Your task to perform on an android device: Search for "bose soundsport free" on costco.com, select the first entry, and add it to the cart. Image 0: 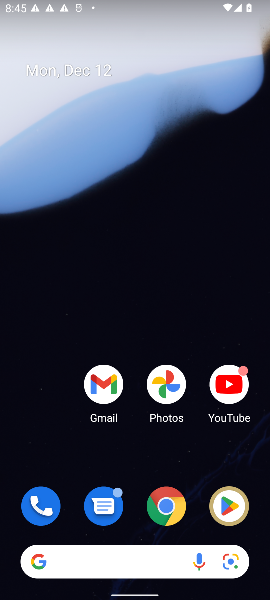
Step 0: click (124, 555)
Your task to perform on an android device: Search for "bose soundsport free" on costco.com, select the first entry, and add it to the cart. Image 1: 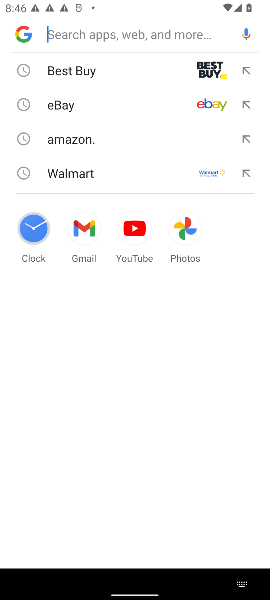
Step 1: type "costco.com"
Your task to perform on an android device: Search for "bose soundsport free" on costco.com, select the first entry, and add it to the cart. Image 2: 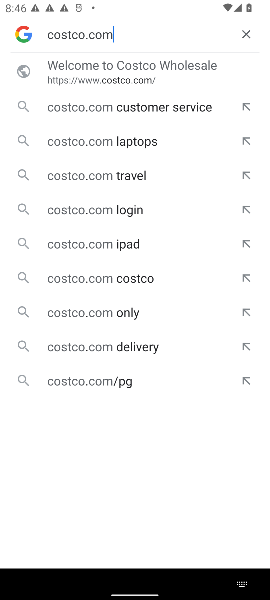
Step 2: click (100, 87)
Your task to perform on an android device: Search for "bose soundsport free" on costco.com, select the first entry, and add it to the cart. Image 3: 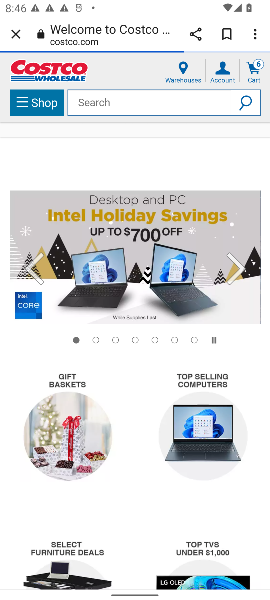
Step 3: drag from (91, 520) to (136, 588)
Your task to perform on an android device: Search for "bose soundsport free" on costco.com, select the first entry, and add it to the cart. Image 4: 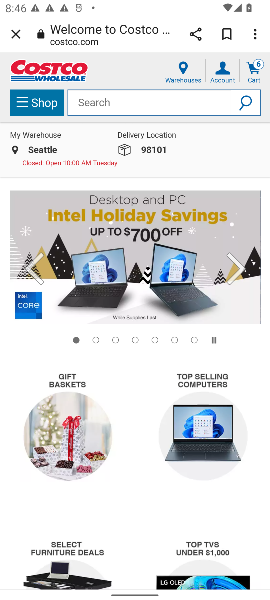
Step 4: click (141, 95)
Your task to perform on an android device: Search for "bose soundsport free" on costco.com, select the first entry, and add it to the cart. Image 5: 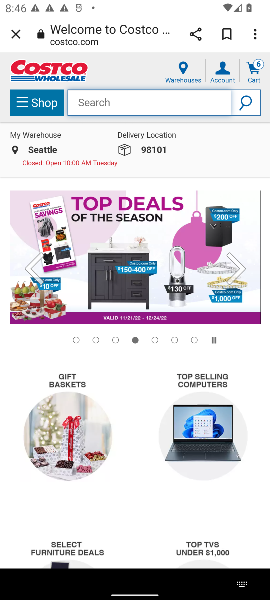
Step 5: type "bose sound link"
Your task to perform on an android device: Search for "bose soundsport free" on costco.com, select the first entry, and add it to the cart. Image 6: 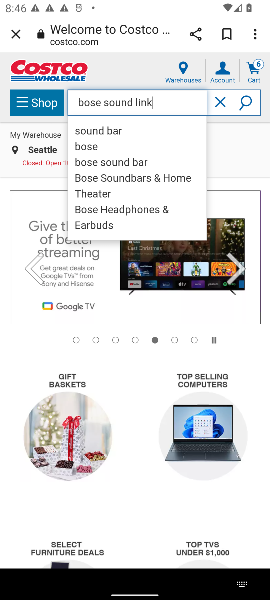
Step 6: click (241, 112)
Your task to perform on an android device: Search for "bose soundsport free" on costco.com, select the first entry, and add it to the cart. Image 7: 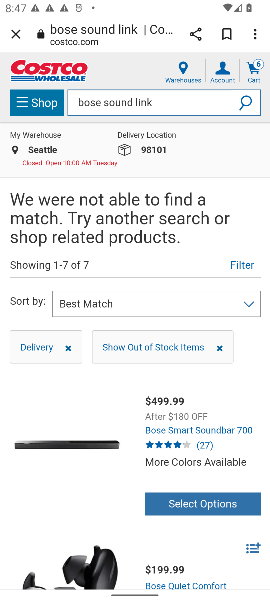
Step 7: click (172, 511)
Your task to perform on an android device: Search for "bose soundsport free" on costco.com, select the first entry, and add it to the cart. Image 8: 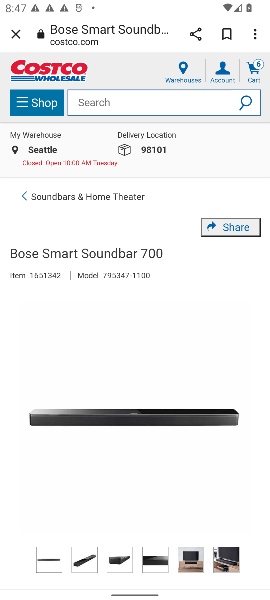
Step 8: click (172, 101)
Your task to perform on an android device: Search for "bose soundsport free" on costco.com, select the first entry, and add it to the cart. Image 9: 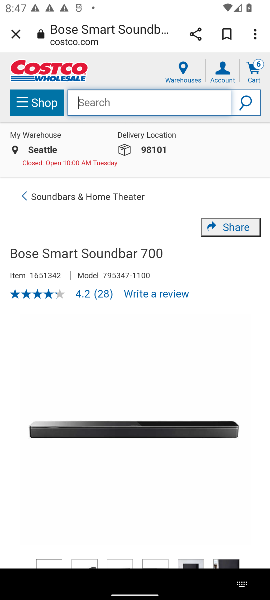
Step 9: drag from (176, 461) to (206, 234)
Your task to perform on an android device: Search for "bose soundsport free" on costco.com, select the first entry, and add it to the cart. Image 10: 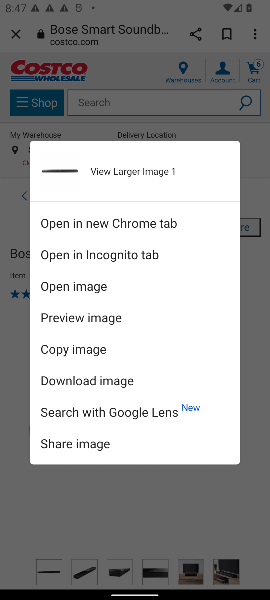
Step 10: click (125, 504)
Your task to perform on an android device: Search for "bose soundsport free" on costco.com, select the first entry, and add it to the cart. Image 11: 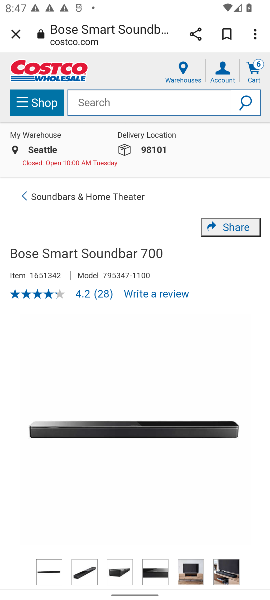
Step 11: drag from (125, 504) to (132, 304)
Your task to perform on an android device: Search for "bose soundsport free" on costco.com, select the first entry, and add it to the cart. Image 12: 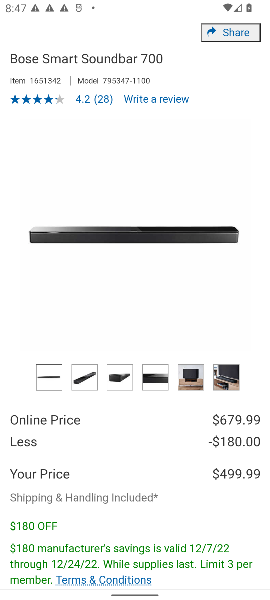
Step 12: drag from (153, 499) to (153, 285)
Your task to perform on an android device: Search for "bose soundsport free" on costco.com, select the first entry, and add it to the cart. Image 13: 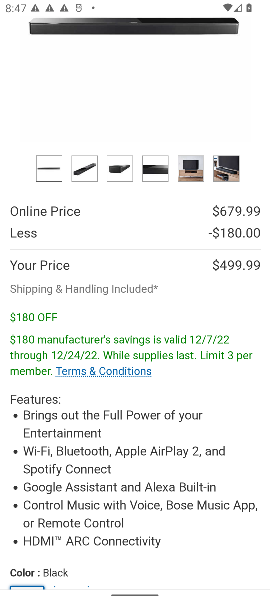
Step 13: drag from (147, 519) to (146, 304)
Your task to perform on an android device: Search for "bose soundsport free" on costco.com, select the first entry, and add it to the cart. Image 14: 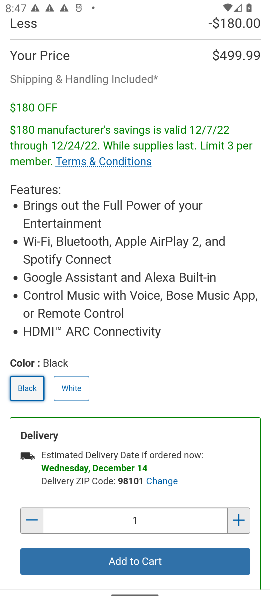
Step 14: click (146, 554)
Your task to perform on an android device: Search for "bose soundsport free" on costco.com, select the first entry, and add it to the cart. Image 15: 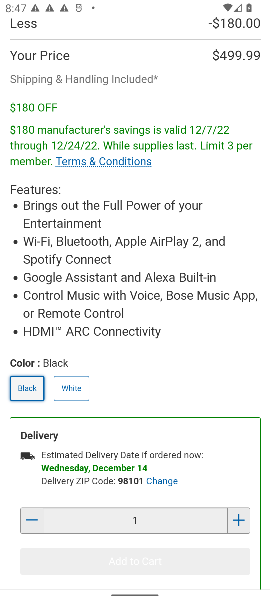
Step 15: task complete